Your task to perform on an android device: toggle location history Image 0: 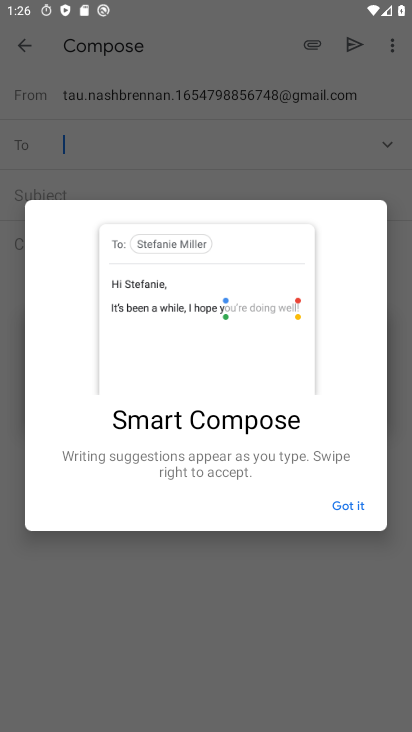
Step 0: press home button
Your task to perform on an android device: toggle location history Image 1: 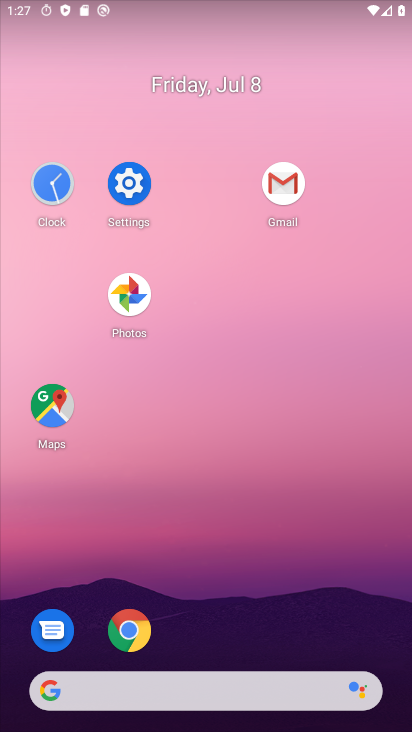
Step 1: click (142, 174)
Your task to perform on an android device: toggle location history Image 2: 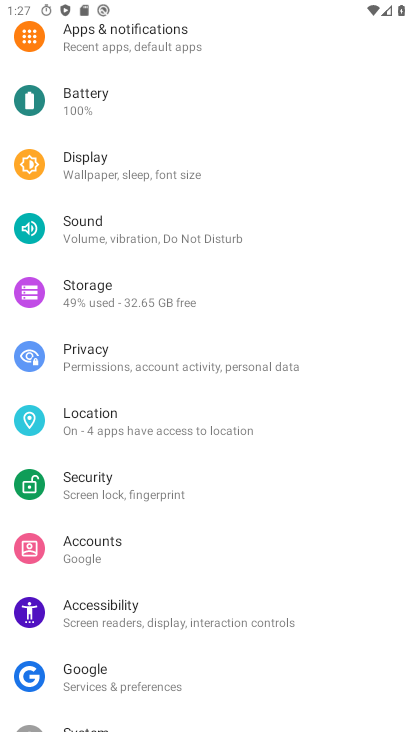
Step 2: click (184, 420)
Your task to perform on an android device: toggle location history Image 3: 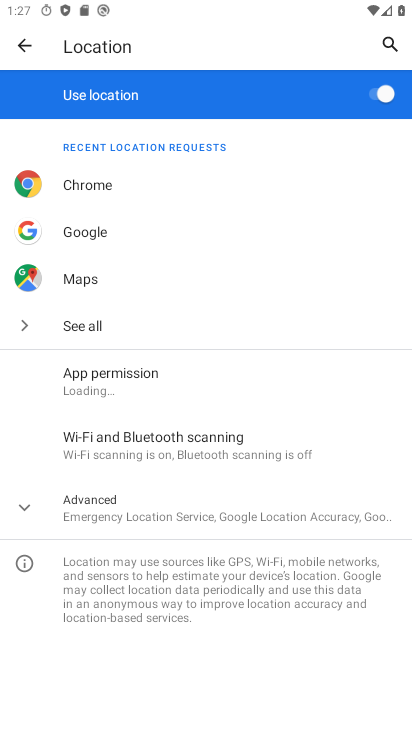
Step 3: click (197, 488)
Your task to perform on an android device: toggle location history Image 4: 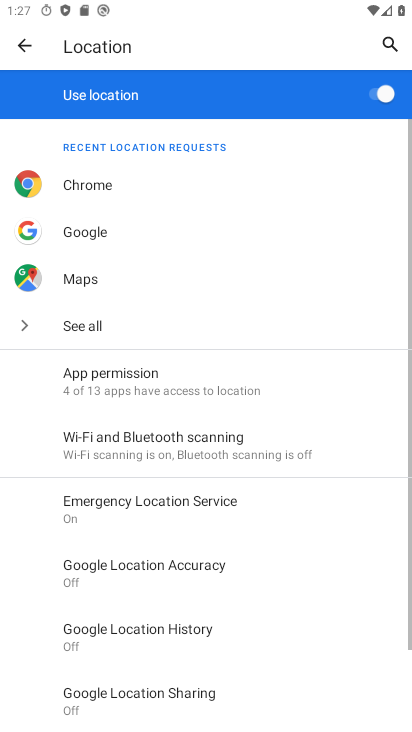
Step 4: click (198, 622)
Your task to perform on an android device: toggle location history Image 5: 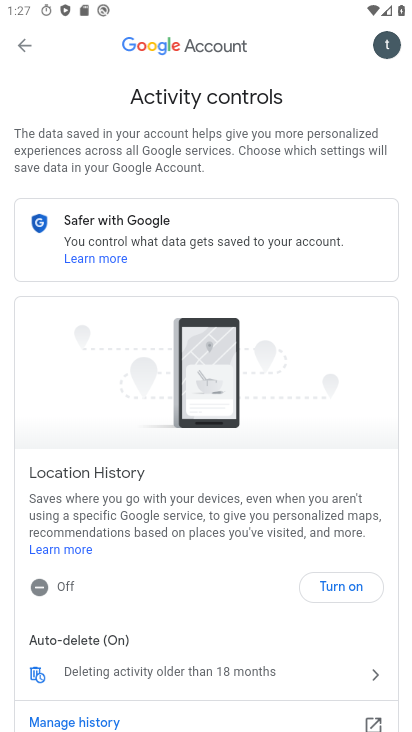
Step 5: drag from (281, 617) to (276, 398)
Your task to perform on an android device: toggle location history Image 6: 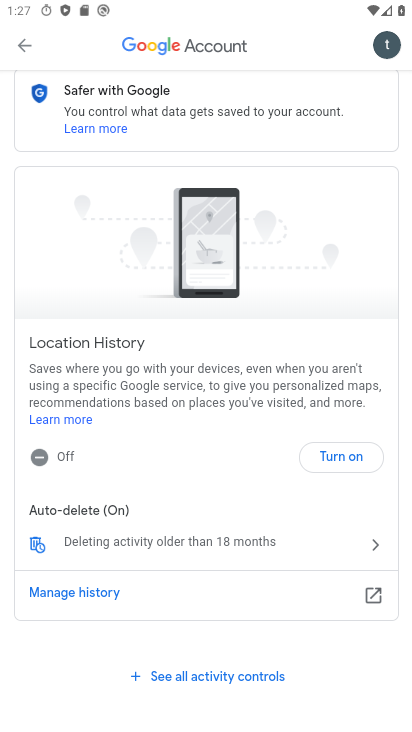
Step 6: click (365, 453)
Your task to perform on an android device: toggle location history Image 7: 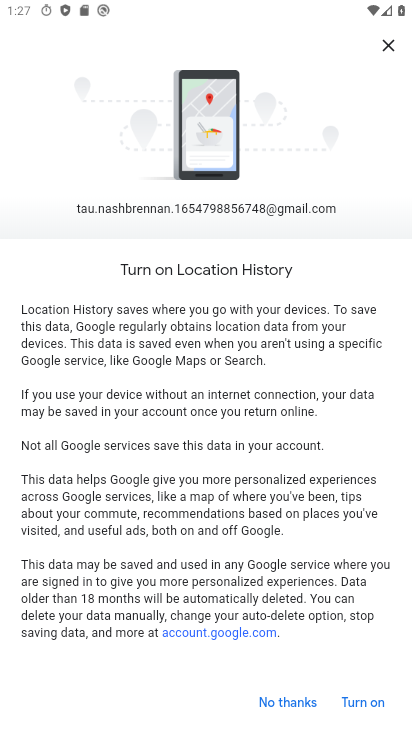
Step 7: click (385, 697)
Your task to perform on an android device: toggle location history Image 8: 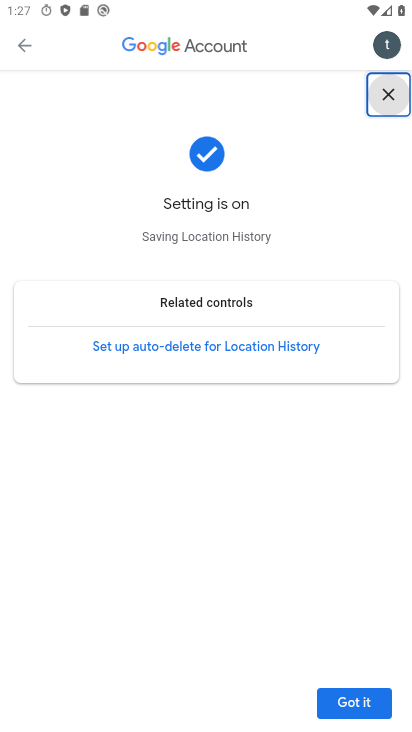
Step 8: click (361, 700)
Your task to perform on an android device: toggle location history Image 9: 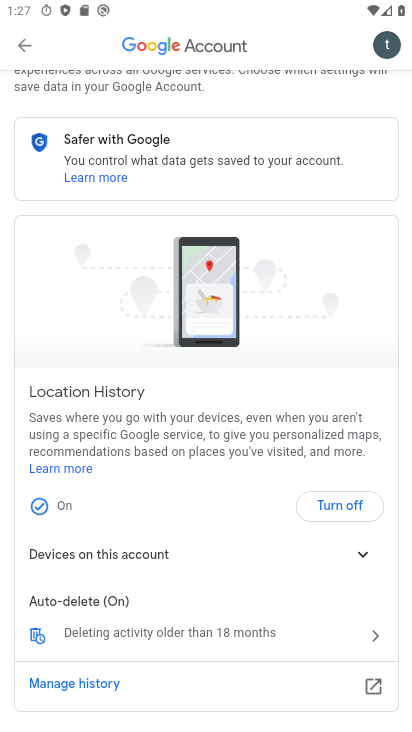
Step 9: task complete